Your task to perform on an android device: Check the weather Image 0: 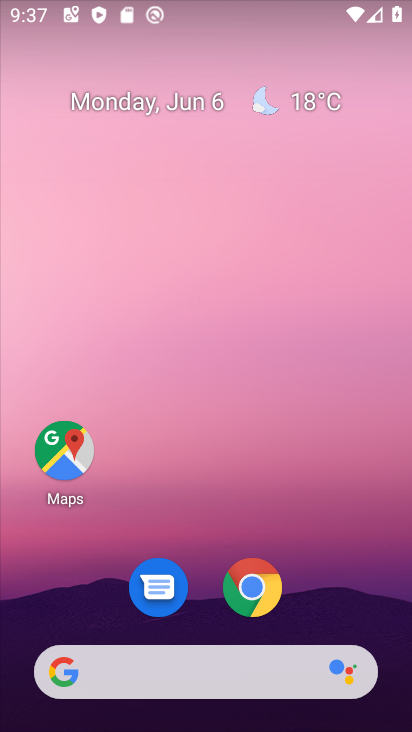
Step 0: click (210, 694)
Your task to perform on an android device: Check the weather Image 1: 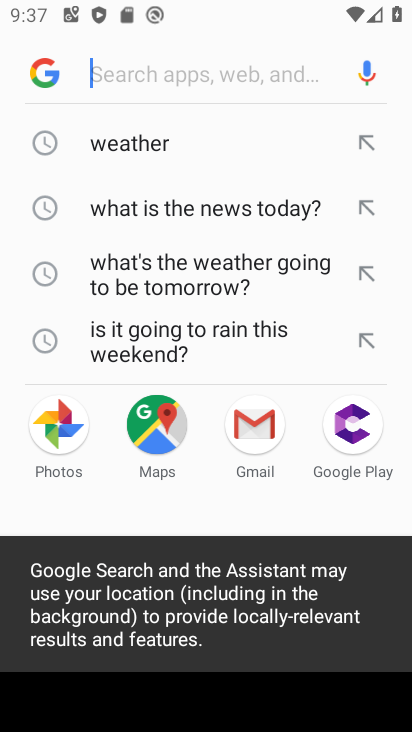
Step 1: click (143, 125)
Your task to perform on an android device: Check the weather Image 2: 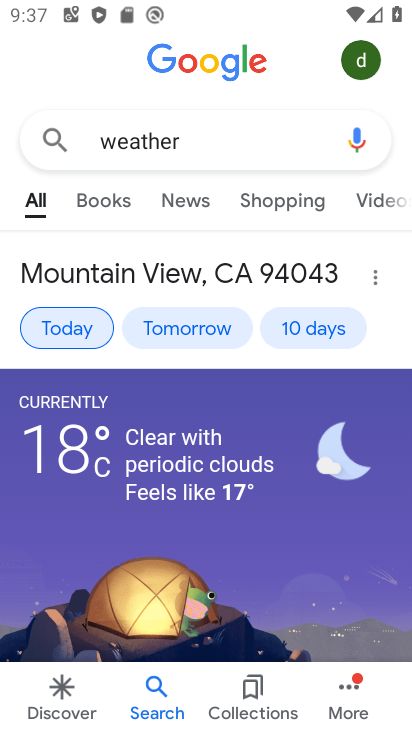
Step 2: task complete